Your task to perform on an android device: turn on bluetooth scan Image 0: 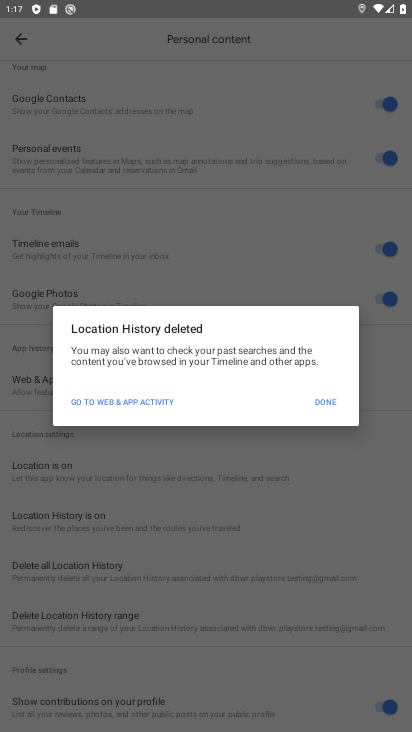
Step 0: press home button
Your task to perform on an android device: turn on bluetooth scan Image 1: 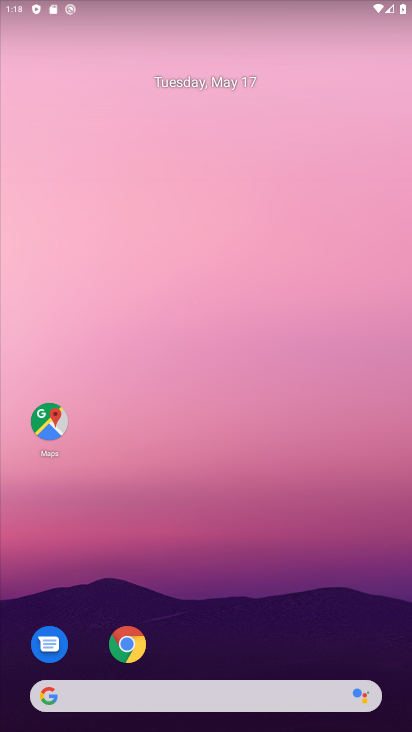
Step 1: drag from (194, 687) to (203, 156)
Your task to perform on an android device: turn on bluetooth scan Image 2: 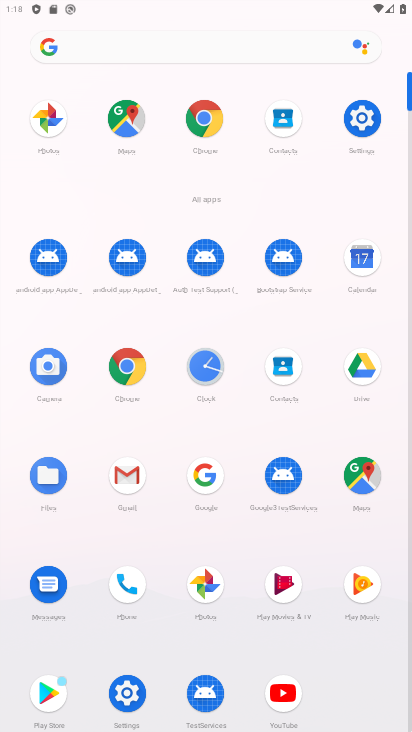
Step 2: click (367, 117)
Your task to perform on an android device: turn on bluetooth scan Image 3: 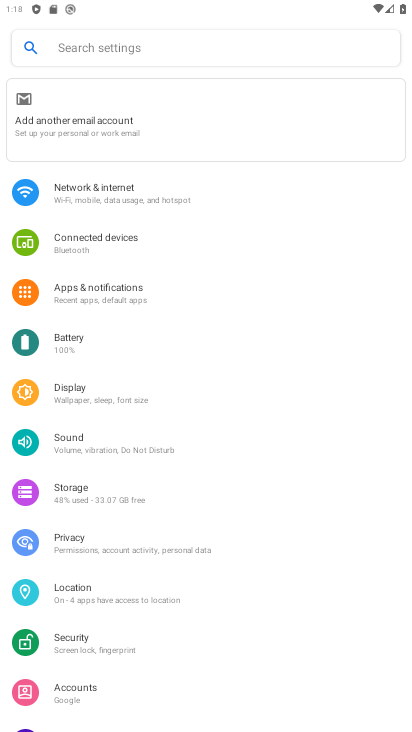
Step 3: click (108, 601)
Your task to perform on an android device: turn on bluetooth scan Image 4: 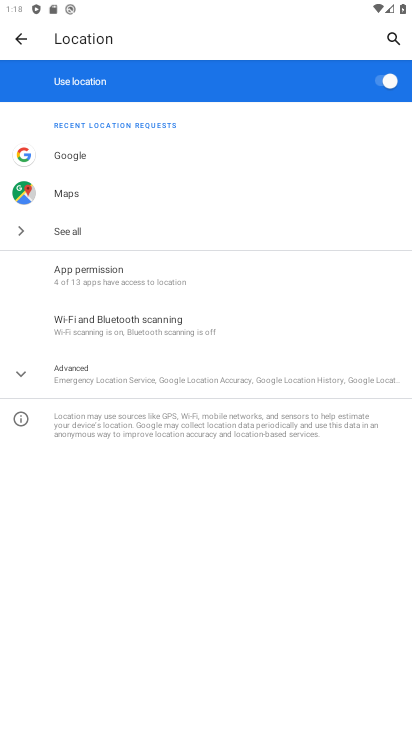
Step 4: click (117, 339)
Your task to perform on an android device: turn on bluetooth scan Image 5: 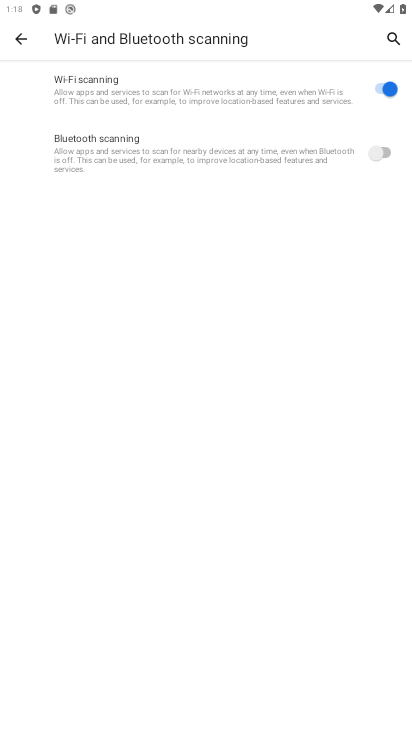
Step 5: click (363, 160)
Your task to perform on an android device: turn on bluetooth scan Image 6: 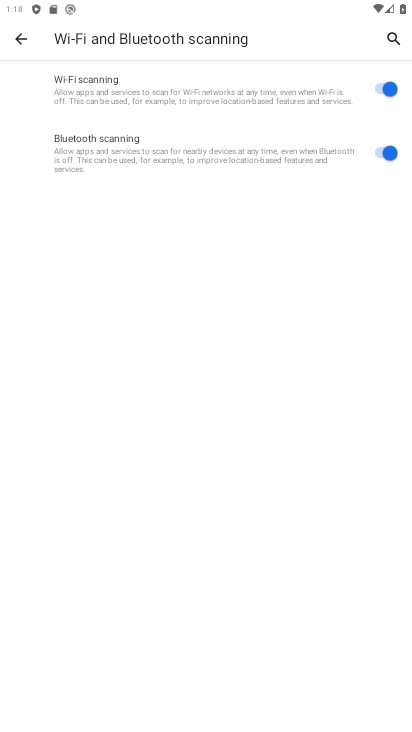
Step 6: task complete